Your task to perform on an android device: clear all cookies in the chrome app Image 0: 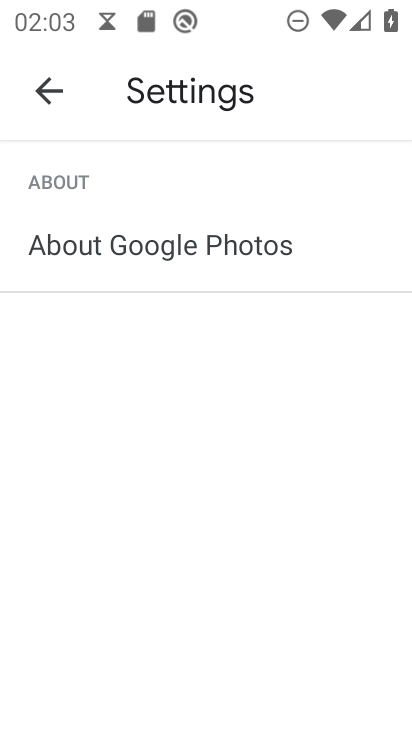
Step 0: press home button
Your task to perform on an android device: clear all cookies in the chrome app Image 1: 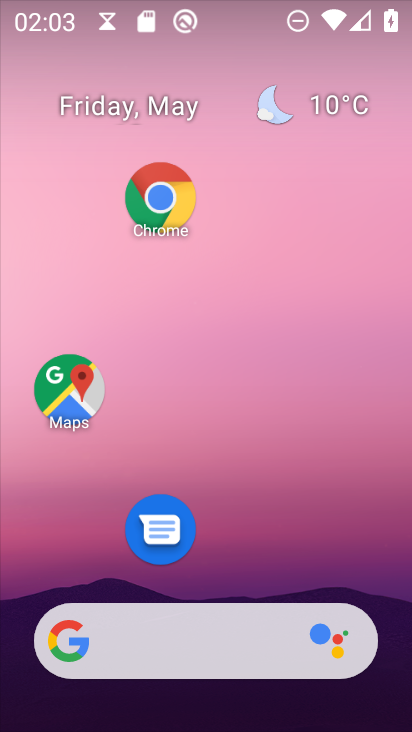
Step 1: click (162, 187)
Your task to perform on an android device: clear all cookies in the chrome app Image 2: 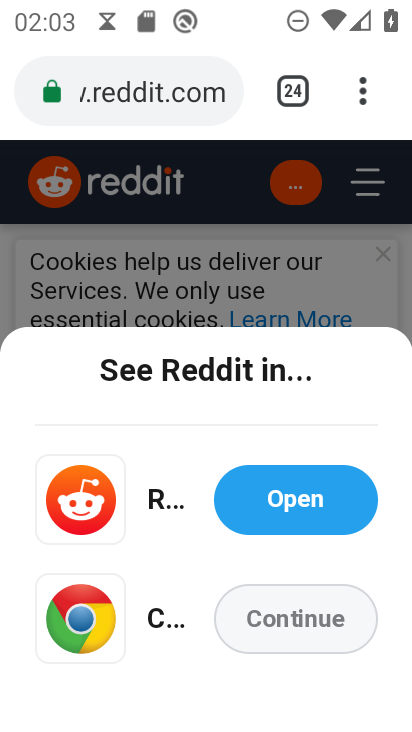
Step 2: click (345, 86)
Your task to perform on an android device: clear all cookies in the chrome app Image 3: 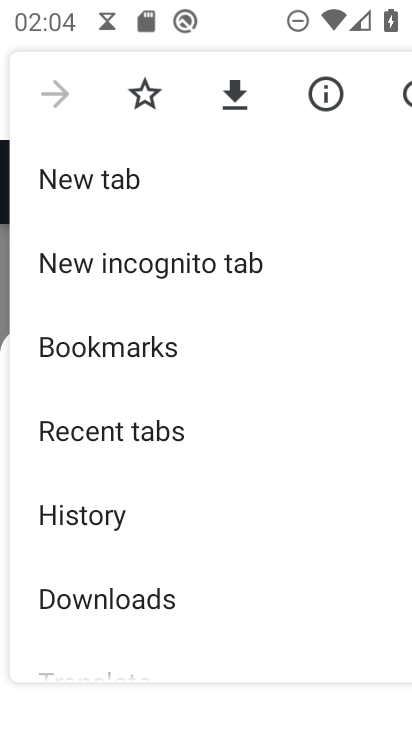
Step 3: drag from (264, 434) to (296, 184)
Your task to perform on an android device: clear all cookies in the chrome app Image 4: 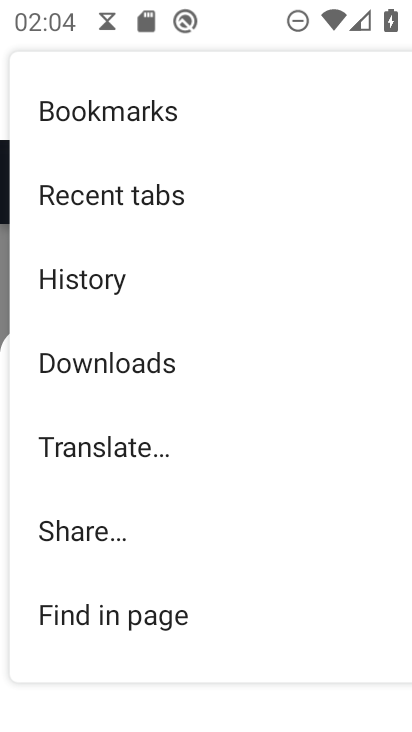
Step 4: drag from (103, 613) to (190, 257)
Your task to perform on an android device: clear all cookies in the chrome app Image 5: 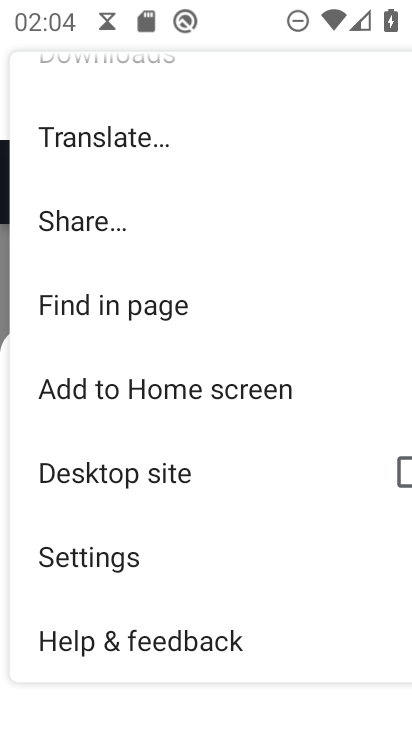
Step 5: click (124, 540)
Your task to perform on an android device: clear all cookies in the chrome app Image 6: 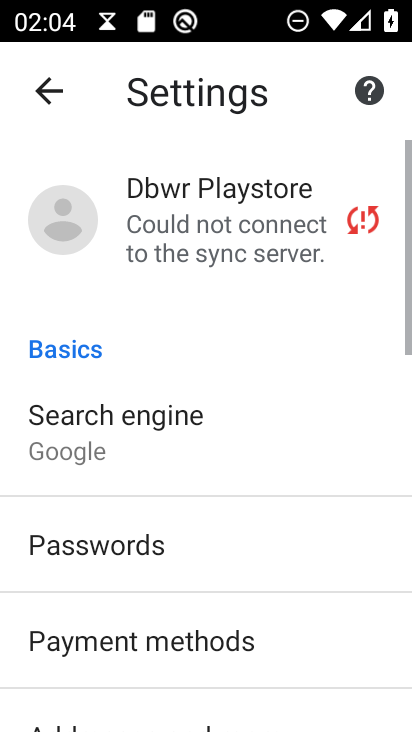
Step 6: drag from (178, 653) to (275, 244)
Your task to perform on an android device: clear all cookies in the chrome app Image 7: 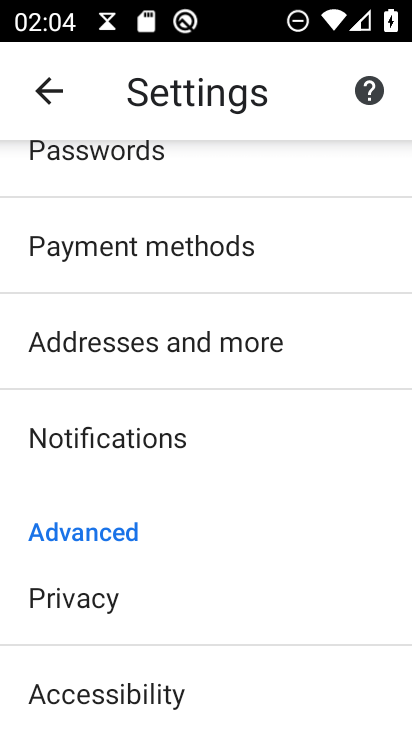
Step 7: drag from (177, 624) to (222, 370)
Your task to perform on an android device: clear all cookies in the chrome app Image 8: 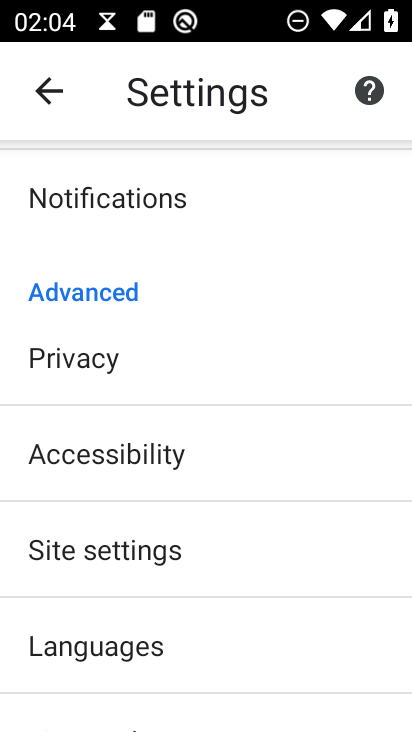
Step 8: drag from (145, 565) to (172, 440)
Your task to perform on an android device: clear all cookies in the chrome app Image 9: 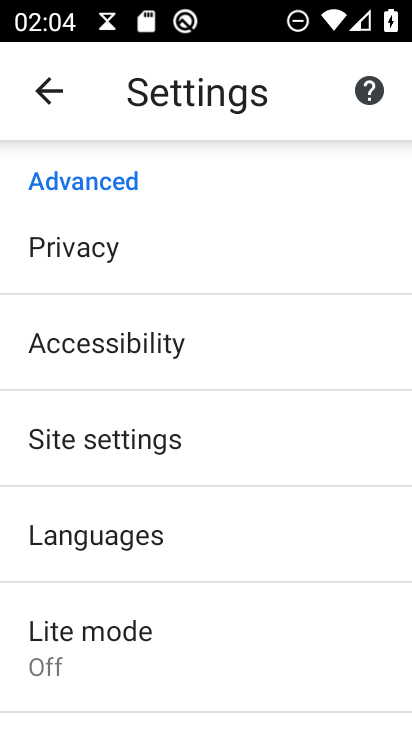
Step 9: click (134, 264)
Your task to perform on an android device: clear all cookies in the chrome app Image 10: 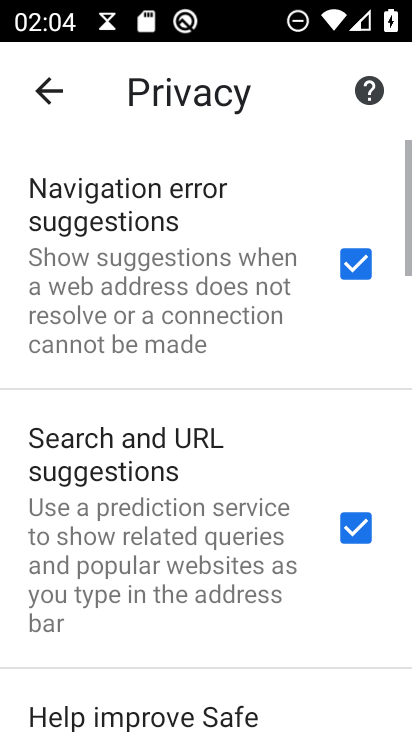
Step 10: drag from (231, 620) to (299, 190)
Your task to perform on an android device: clear all cookies in the chrome app Image 11: 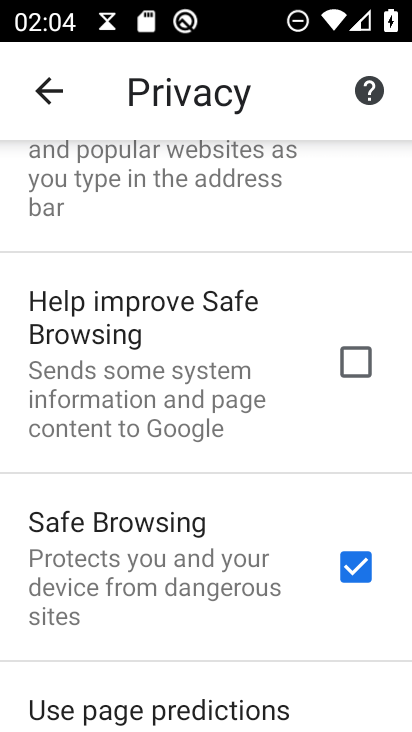
Step 11: drag from (263, 674) to (264, 326)
Your task to perform on an android device: clear all cookies in the chrome app Image 12: 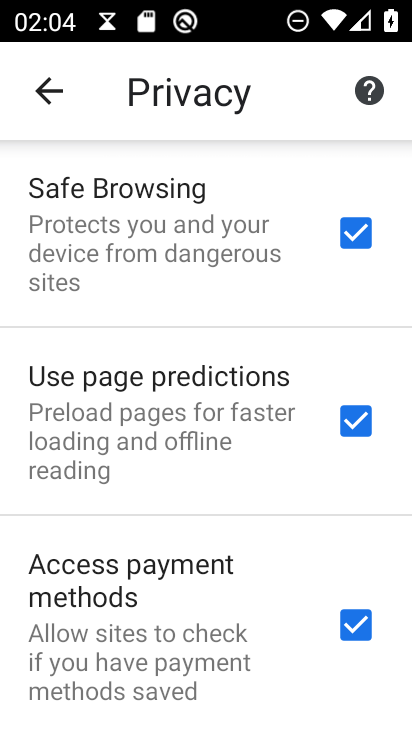
Step 12: drag from (240, 680) to (269, 142)
Your task to perform on an android device: clear all cookies in the chrome app Image 13: 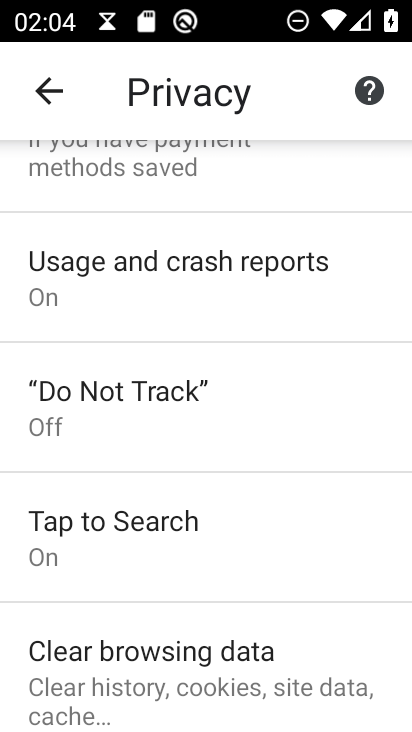
Step 13: drag from (246, 585) to (289, 215)
Your task to perform on an android device: clear all cookies in the chrome app Image 14: 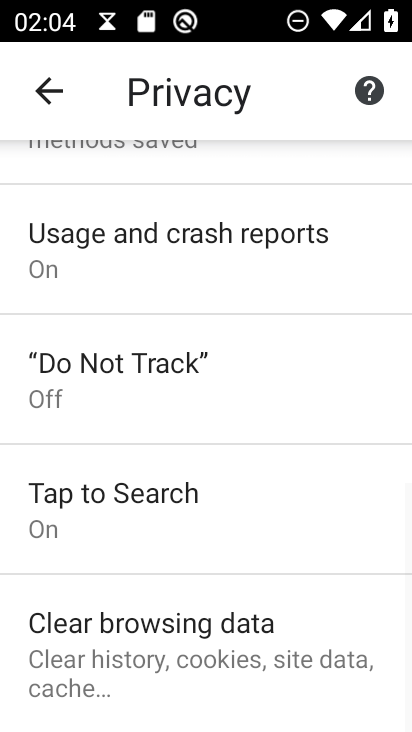
Step 14: click (117, 680)
Your task to perform on an android device: clear all cookies in the chrome app Image 15: 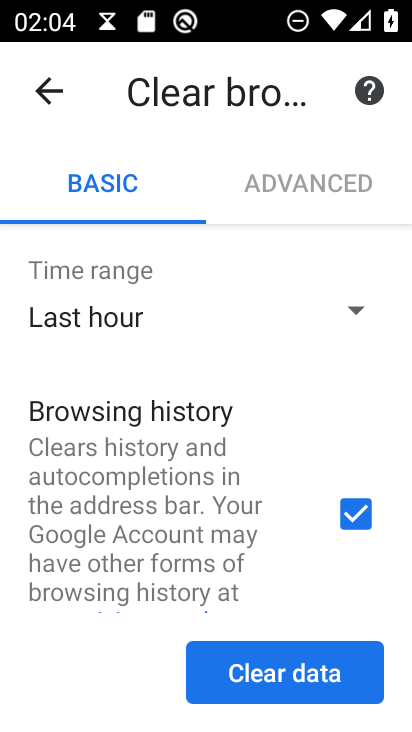
Step 15: click (263, 664)
Your task to perform on an android device: clear all cookies in the chrome app Image 16: 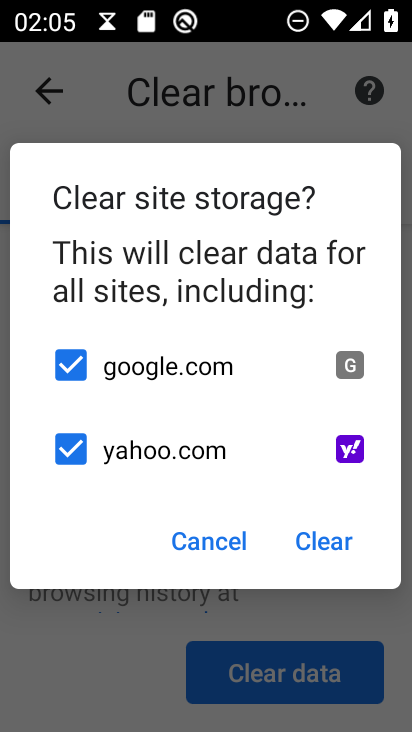
Step 16: click (314, 547)
Your task to perform on an android device: clear all cookies in the chrome app Image 17: 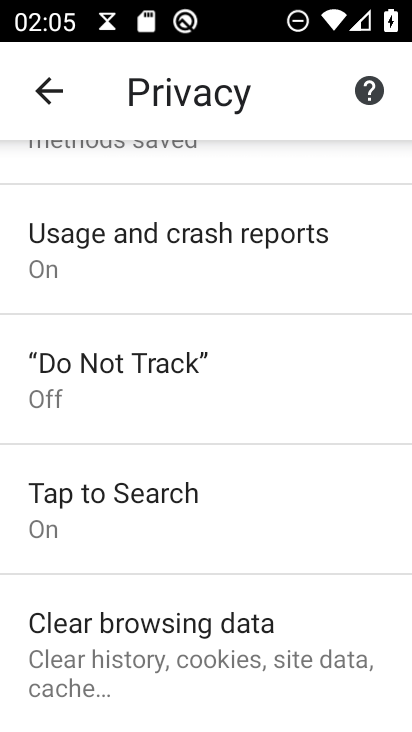
Step 17: task complete